Your task to perform on an android device: turn on the 12-hour format for clock Image 0: 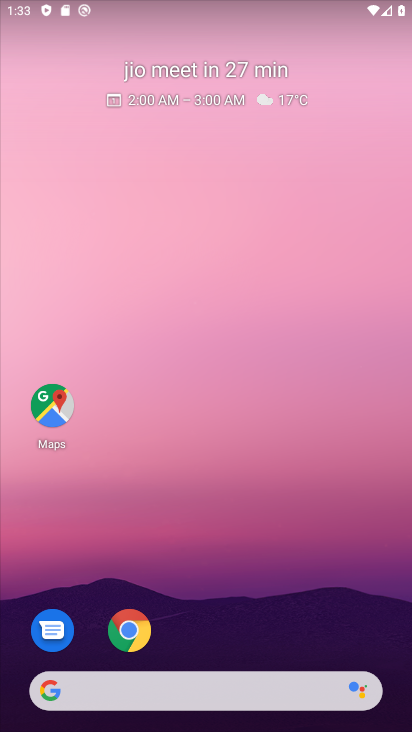
Step 0: drag from (177, 645) to (312, 102)
Your task to perform on an android device: turn on the 12-hour format for clock Image 1: 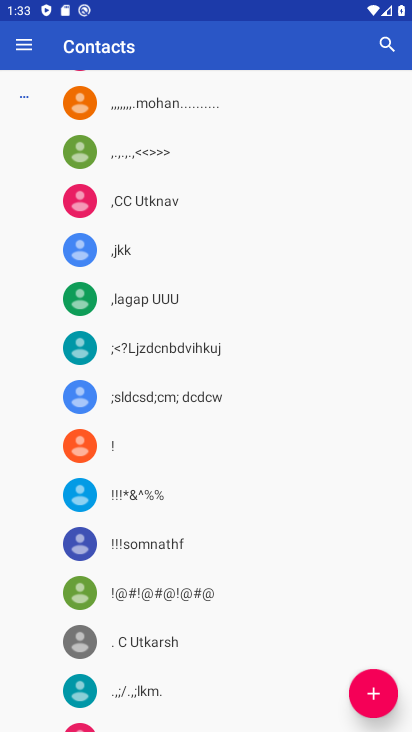
Step 1: press home button
Your task to perform on an android device: turn on the 12-hour format for clock Image 2: 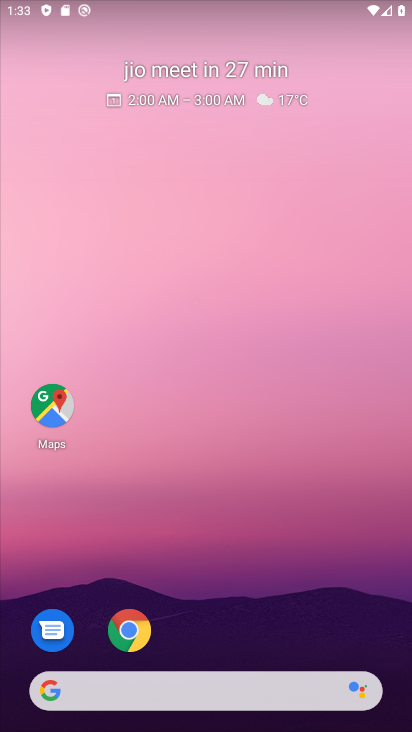
Step 2: drag from (218, 630) to (340, 111)
Your task to perform on an android device: turn on the 12-hour format for clock Image 3: 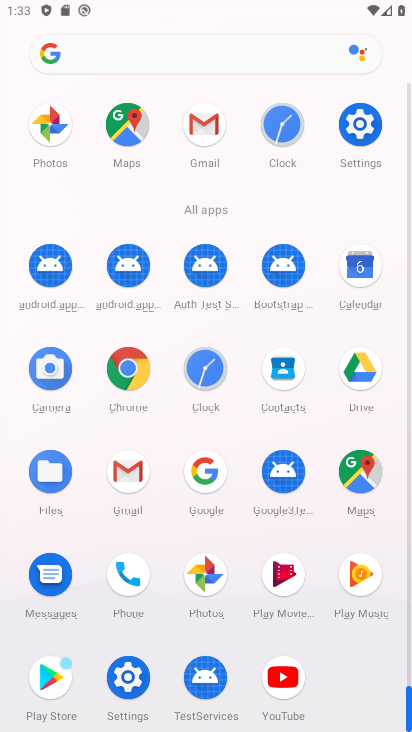
Step 3: click (201, 353)
Your task to perform on an android device: turn on the 12-hour format for clock Image 4: 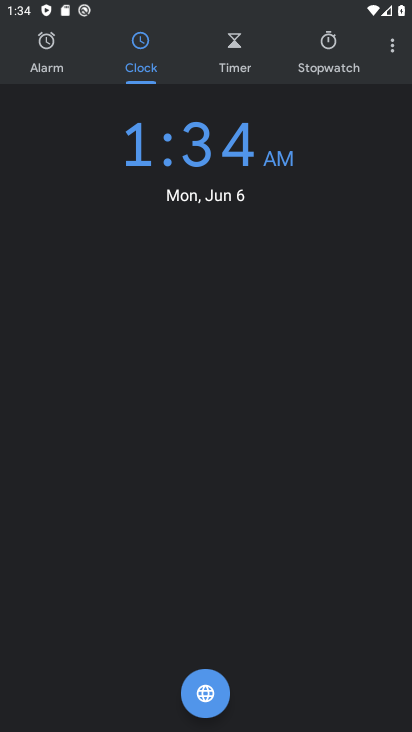
Step 4: click (384, 44)
Your task to perform on an android device: turn on the 12-hour format for clock Image 5: 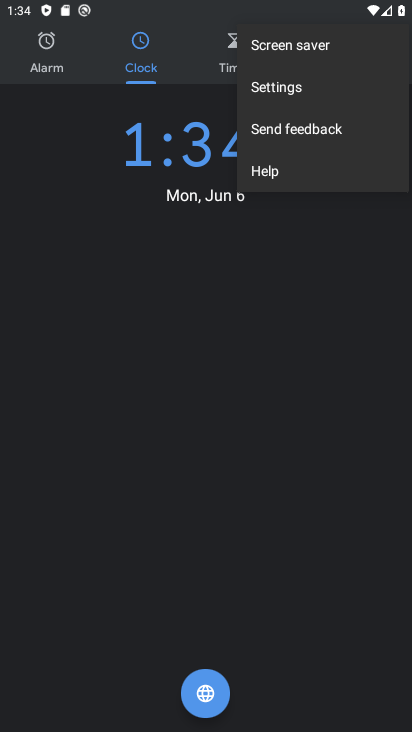
Step 5: click (305, 84)
Your task to perform on an android device: turn on the 12-hour format for clock Image 6: 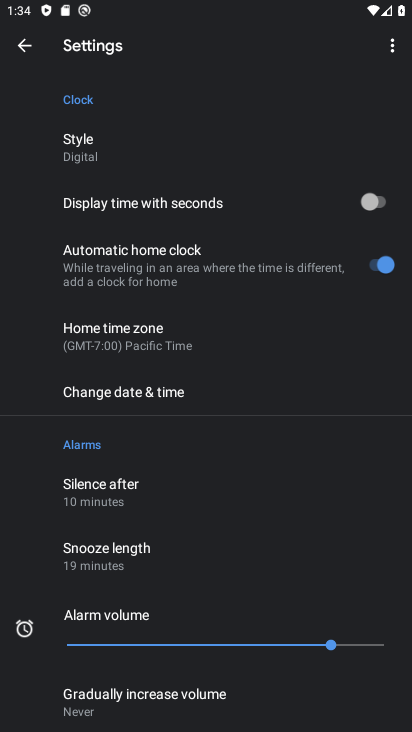
Step 6: click (151, 393)
Your task to perform on an android device: turn on the 12-hour format for clock Image 7: 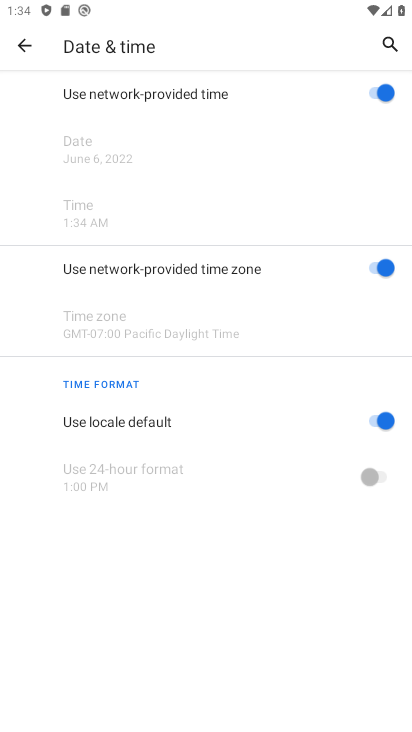
Step 7: task complete